Your task to perform on an android device: turn on location history Image 0: 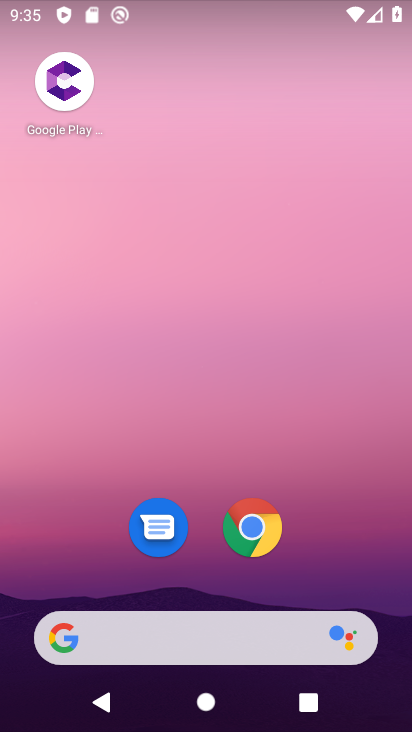
Step 0: drag from (335, 556) to (320, 81)
Your task to perform on an android device: turn on location history Image 1: 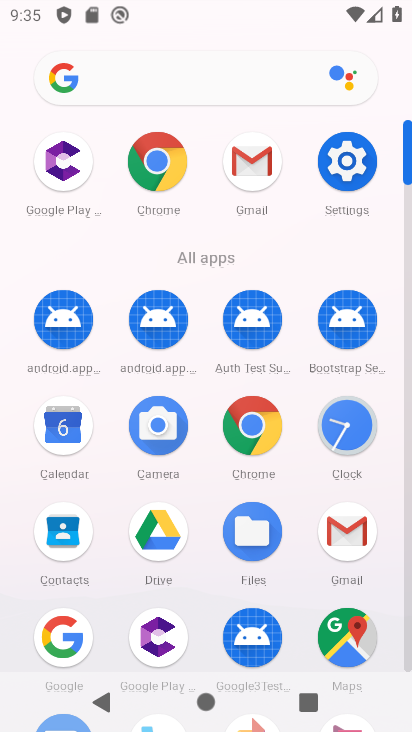
Step 1: click (357, 623)
Your task to perform on an android device: turn on location history Image 2: 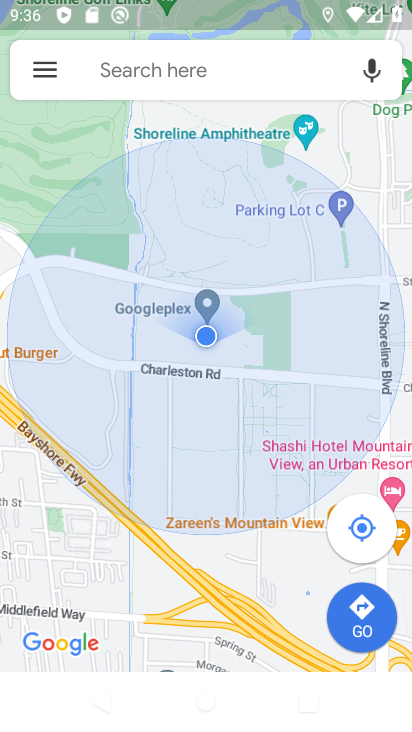
Step 2: click (38, 64)
Your task to perform on an android device: turn on location history Image 3: 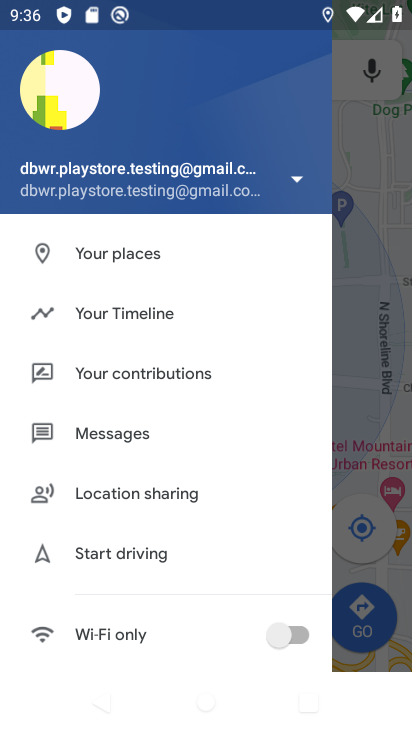
Step 3: click (138, 319)
Your task to perform on an android device: turn on location history Image 4: 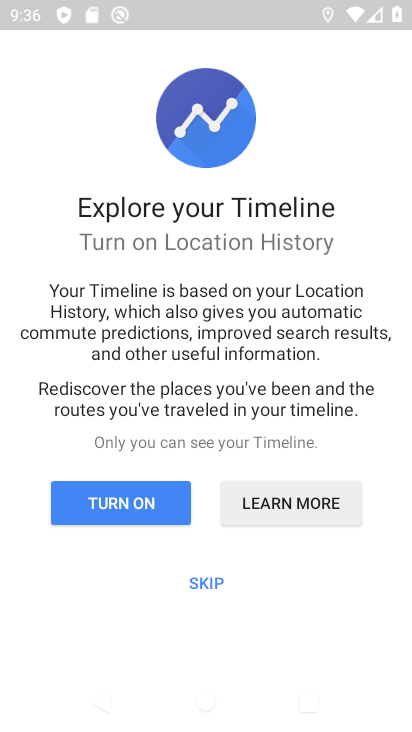
Step 4: click (166, 497)
Your task to perform on an android device: turn on location history Image 5: 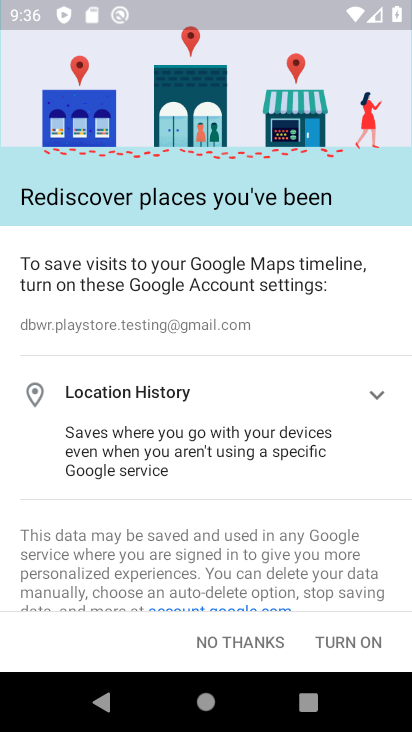
Step 5: click (373, 638)
Your task to perform on an android device: turn on location history Image 6: 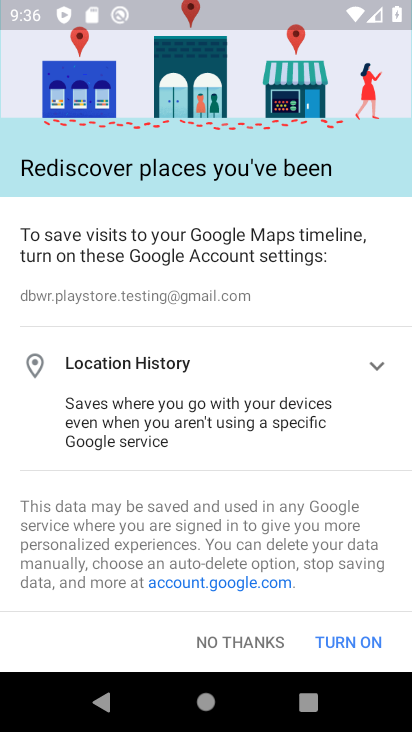
Step 6: click (373, 638)
Your task to perform on an android device: turn on location history Image 7: 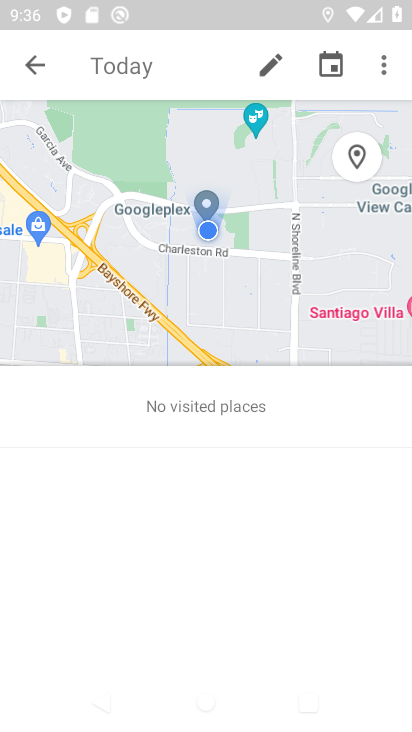
Step 7: task complete